Your task to perform on an android device: What's the weather today? Image 0: 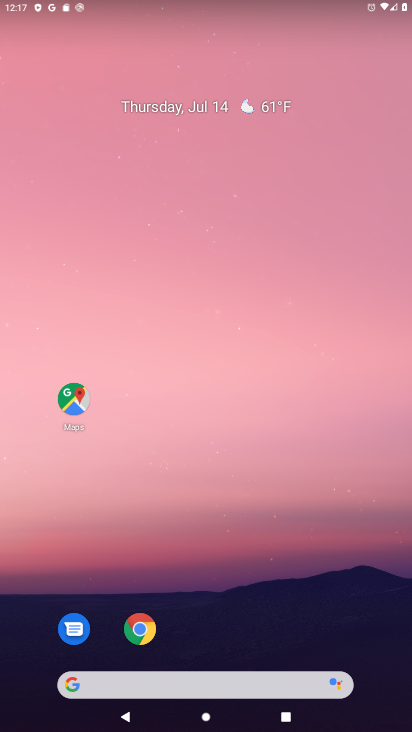
Step 0: drag from (187, 687) to (263, 144)
Your task to perform on an android device: What's the weather today? Image 1: 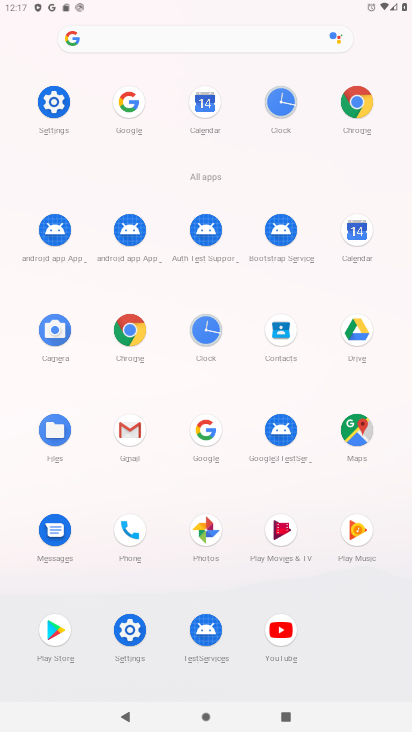
Step 1: click (129, 104)
Your task to perform on an android device: What's the weather today? Image 2: 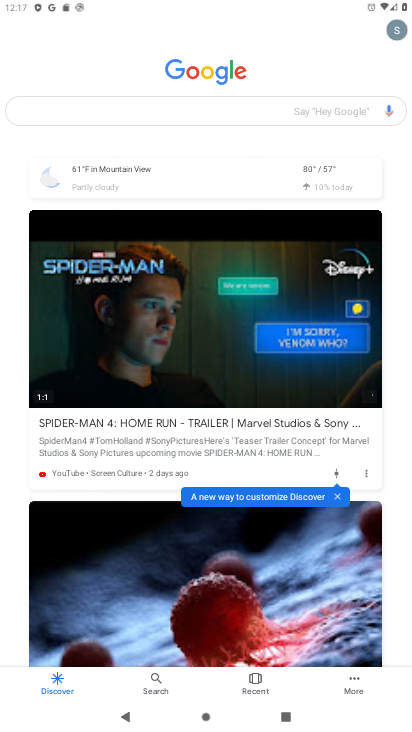
Step 2: click (130, 171)
Your task to perform on an android device: What's the weather today? Image 3: 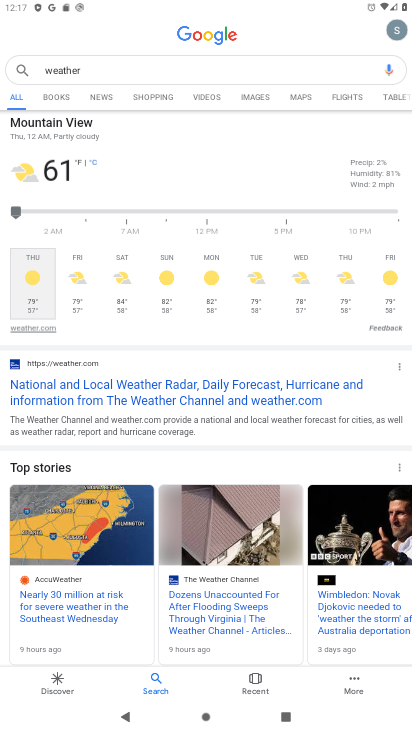
Step 3: task complete